Your task to perform on an android device: Open the calendar and show me this week's events? Image 0: 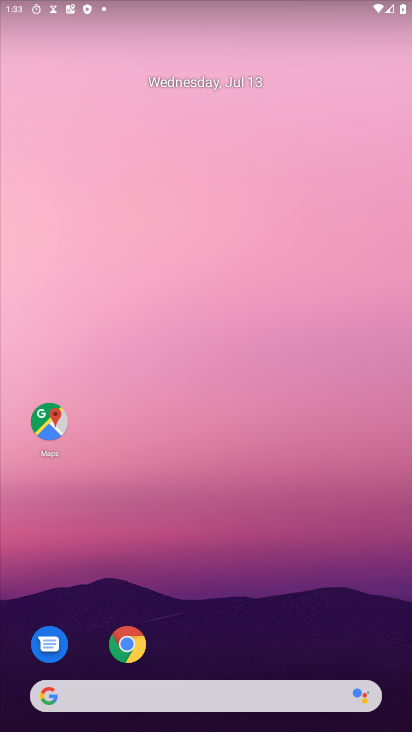
Step 0: press home button
Your task to perform on an android device: Open the calendar and show me this week's events? Image 1: 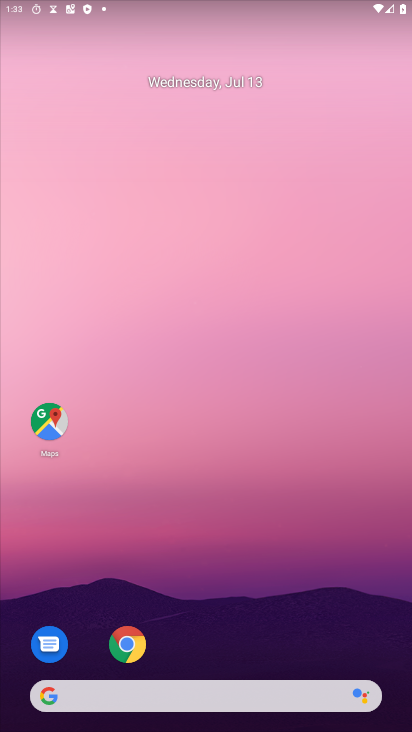
Step 1: drag from (244, 618) to (212, 46)
Your task to perform on an android device: Open the calendar and show me this week's events? Image 2: 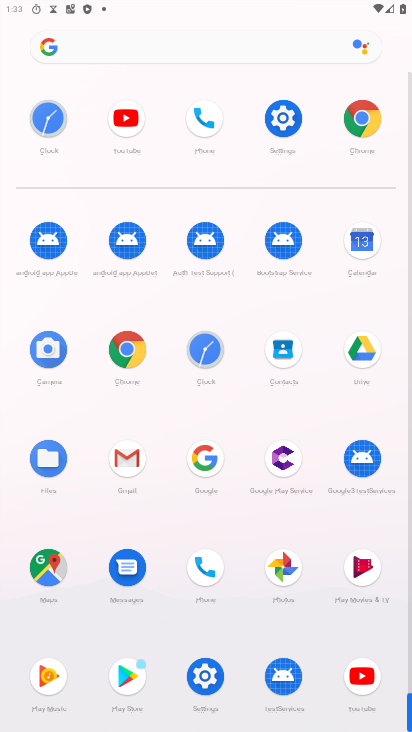
Step 2: click (367, 237)
Your task to perform on an android device: Open the calendar and show me this week's events? Image 3: 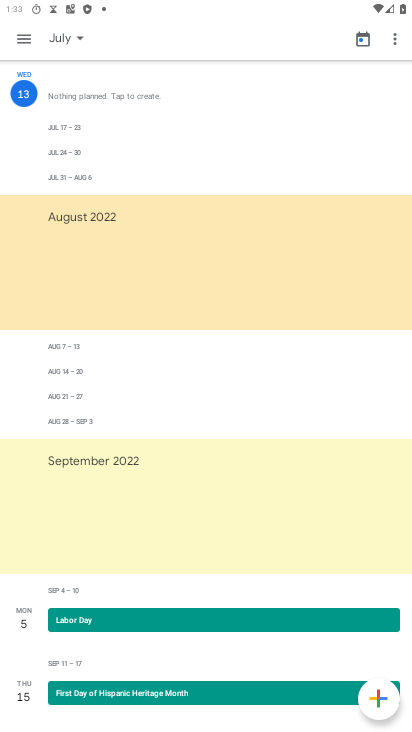
Step 3: click (20, 37)
Your task to perform on an android device: Open the calendar and show me this week's events? Image 4: 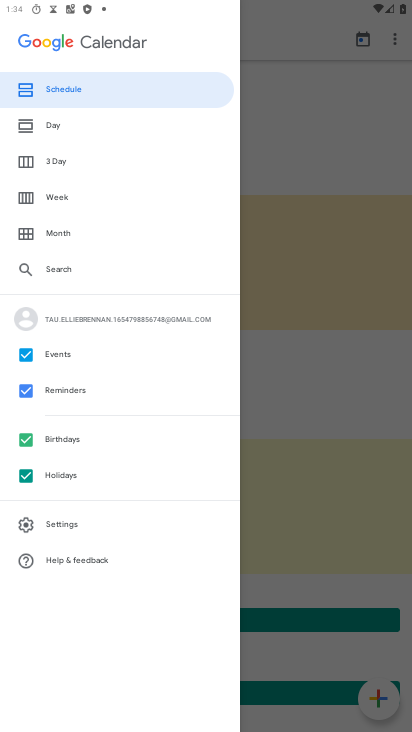
Step 4: click (57, 89)
Your task to perform on an android device: Open the calendar and show me this week's events? Image 5: 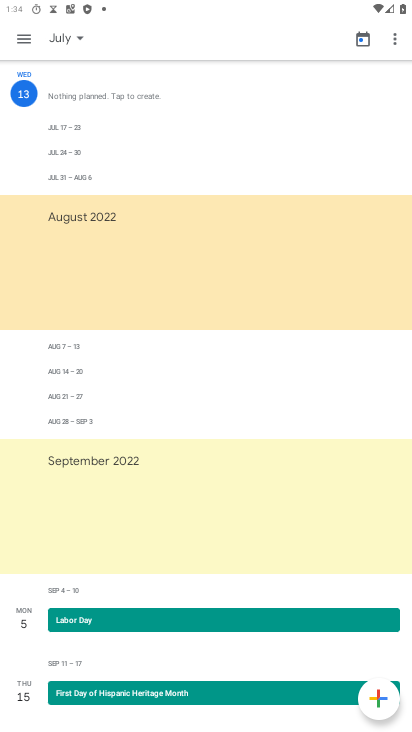
Step 5: click (19, 38)
Your task to perform on an android device: Open the calendar and show me this week's events? Image 6: 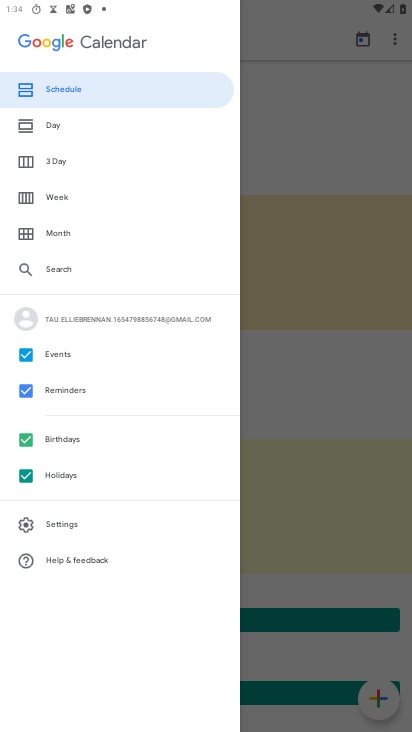
Step 6: click (53, 197)
Your task to perform on an android device: Open the calendar and show me this week's events? Image 7: 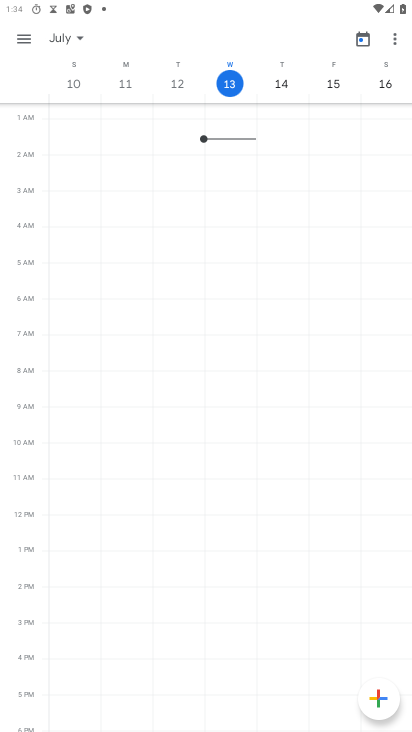
Step 7: task complete